Your task to perform on an android device: Search for Mexican restaurants on Maps Image 0: 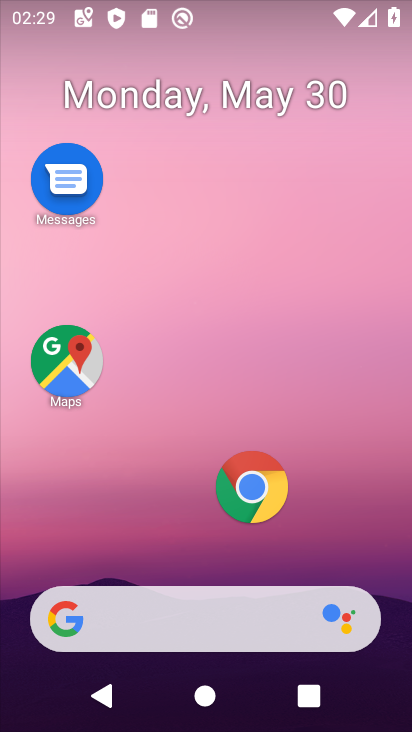
Step 0: drag from (183, 561) to (191, 97)
Your task to perform on an android device: Search for Mexican restaurants on Maps Image 1: 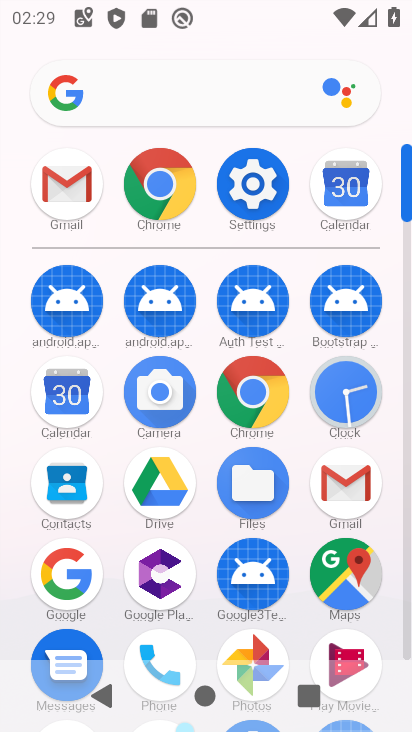
Step 1: click (345, 576)
Your task to perform on an android device: Search for Mexican restaurants on Maps Image 2: 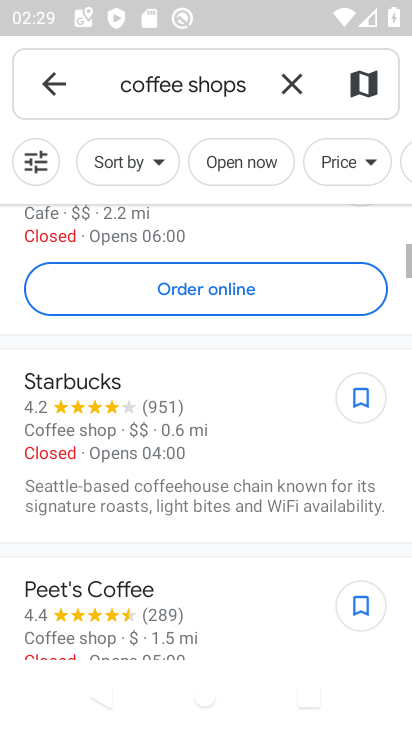
Step 2: click (53, 98)
Your task to perform on an android device: Search for Mexican restaurants on Maps Image 3: 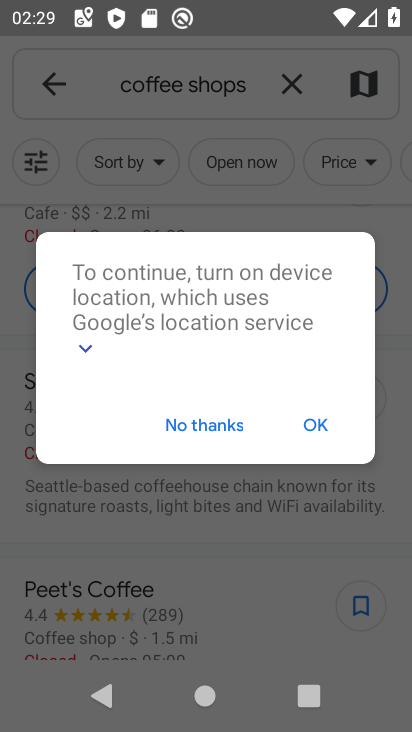
Step 3: click (309, 446)
Your task to perform on an android device: Search for Mexican restaurants on Maps Image 4: 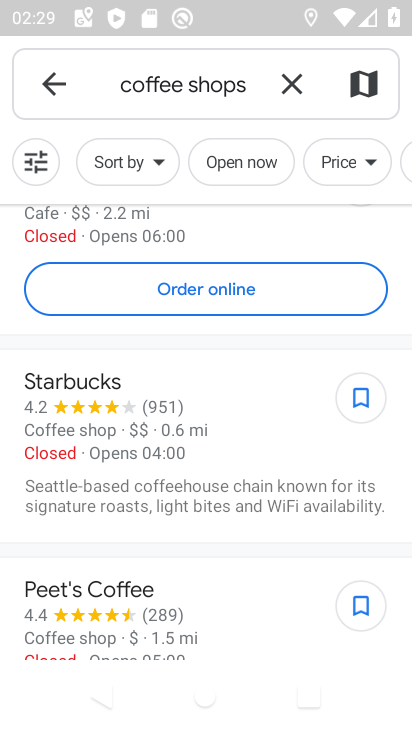
Step 4: click (280, 91)
Your task to perform on an android device: Search for Mexican restaurants on Maps Image 5: 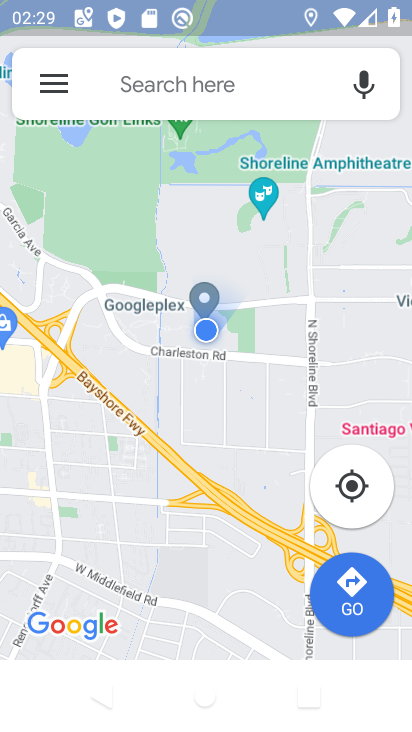
Step 5: click (175, 79)
Your task to perform on an android device: Search for Mexican restaurants on Maps Image 6: 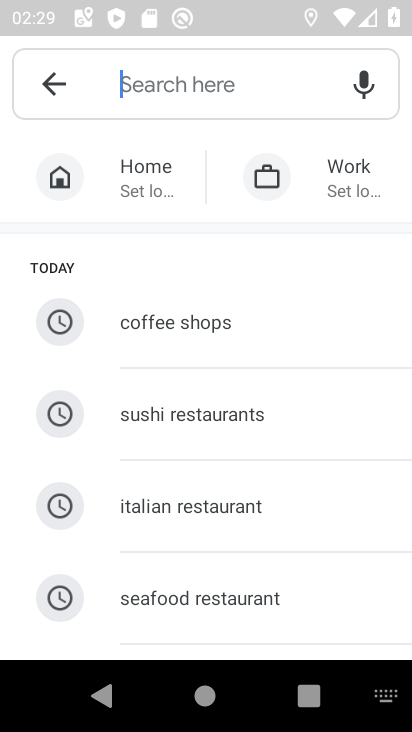
Step 6: drag from (215, 582) to (213, 158)
Your task to perform on an android device: Search for Mexican restaurants on Maps Image 7: 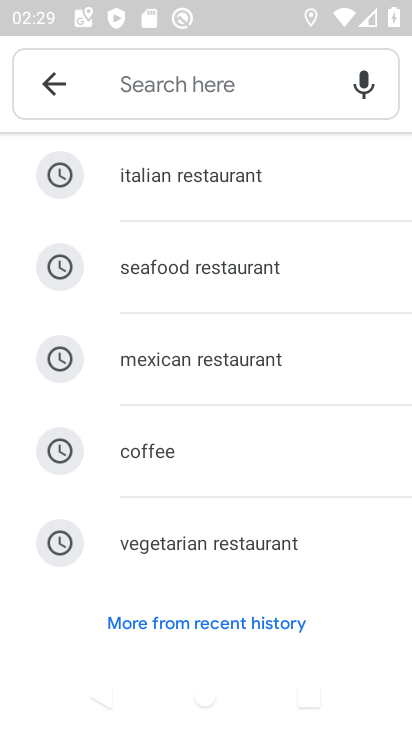
Step 7: click (189, 355)
Your task to perform on an android device: Search for Mexican restaurants on Maps Image 8: 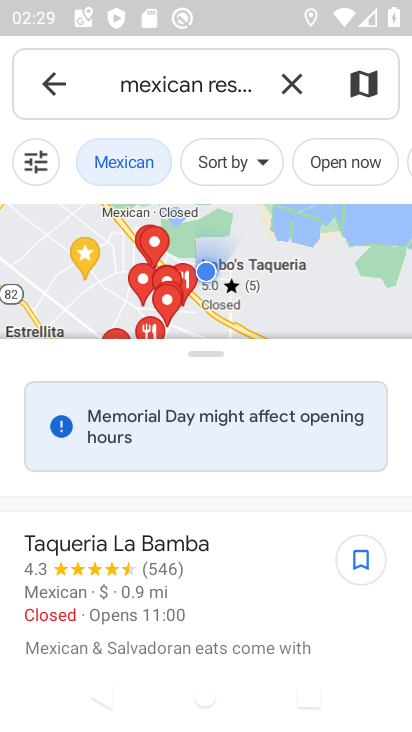
Step 8: task complete